Your task to perform on an android device: Show me productivity apps on the Play Store Image 0: 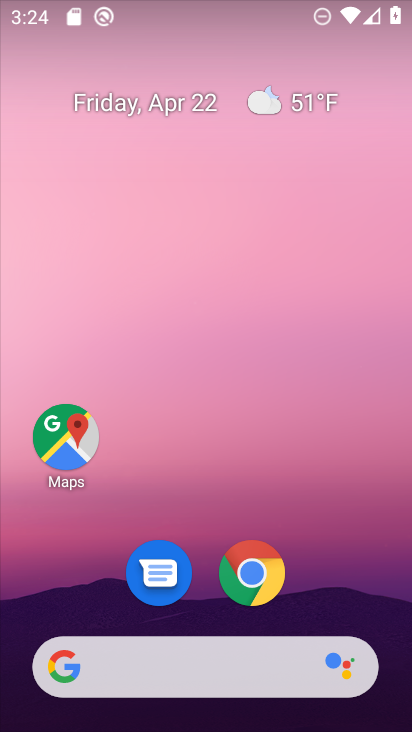
Step 0: drag from (317, 552) to (308, 190)
Your task to perform on an android device: Show me productivity apps on the Play Store Image 1: 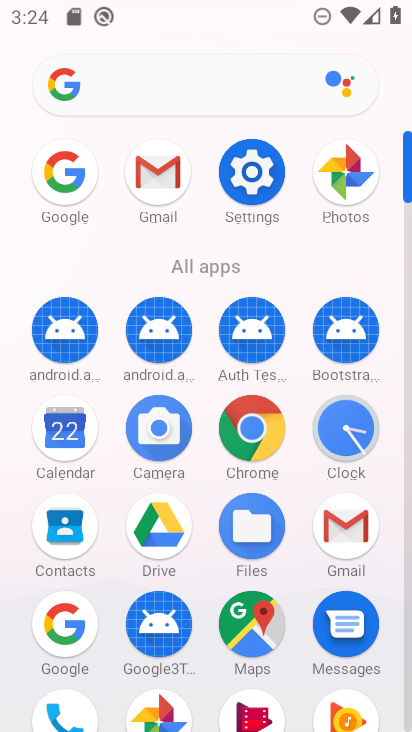
Step 1: drag from (231, 523) to (252, 131)
Your task to perform on an android device: Show me productivity apps on the Play Store Image 2: 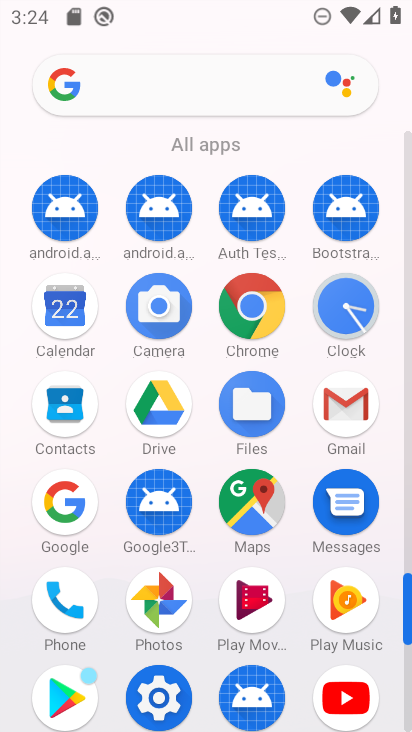
Step 2: drag from (209, 504) to (233, 173)
Your task to perform on an android device: Show me productivity apps on the Play Store Image 3: 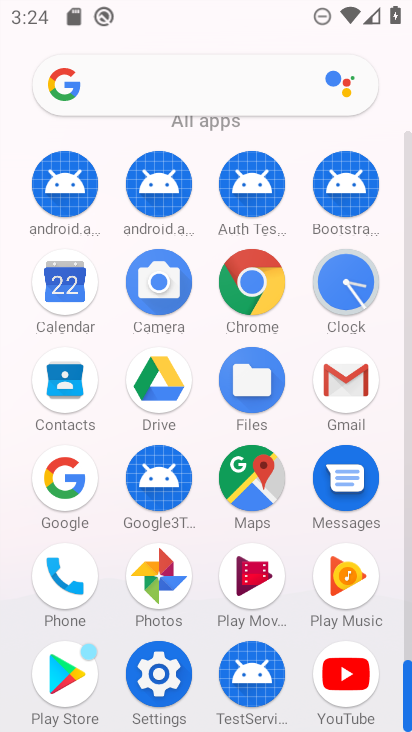
Step 3: click (95, 666)
Your task to perform on an android device: Show me productivity apps on the Play Store Image 4: 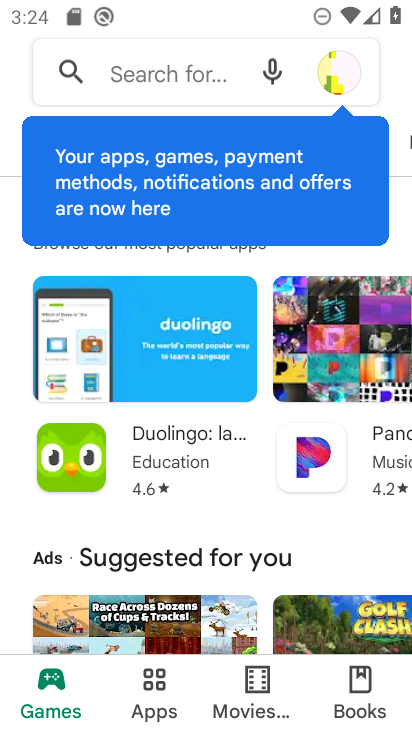
Step 4: click (166, 695)
Your task to perform on an android device: Show me productivity apps on the Play Store Image 5: 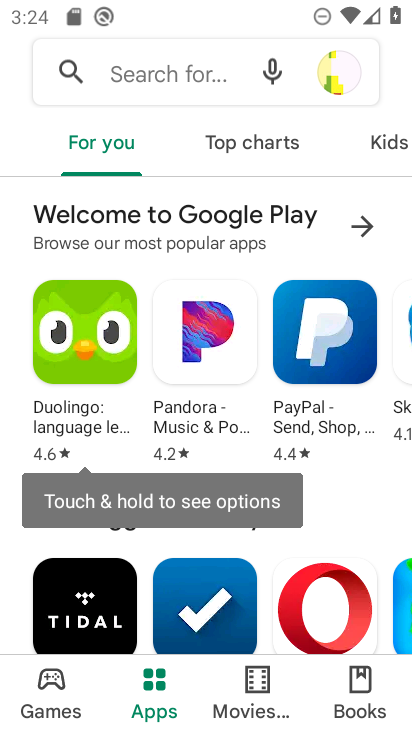
Step 5: click (149, 688)
Your task to perform on an android device: Show me productivity apps on the Play Store Image 6: 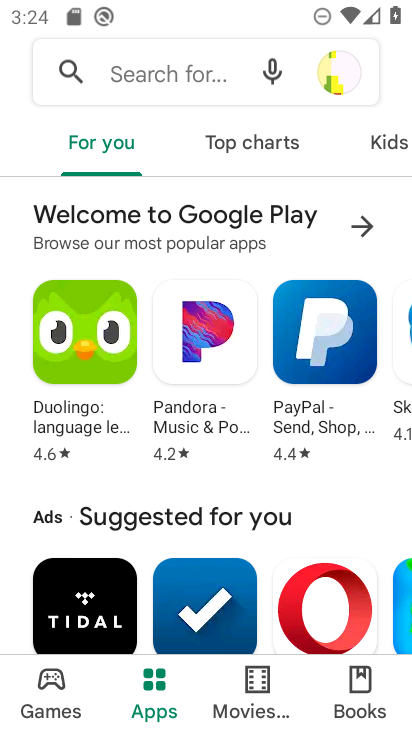
Step 6: drag from (343, 153) to (41, 251)
Your task to perform on an android device: Show me productivity apps on the Play Store Image 7: 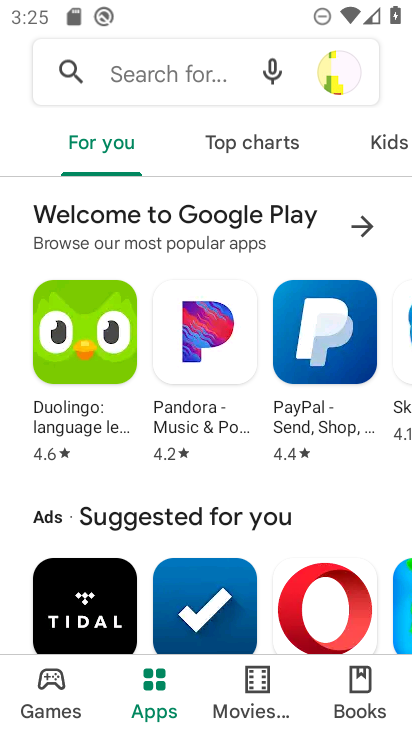
Step 7: drag from (364, 130) to (21, 132)
Your task to perform on an android device: Show me productivity apps on the Play Store Image 8: 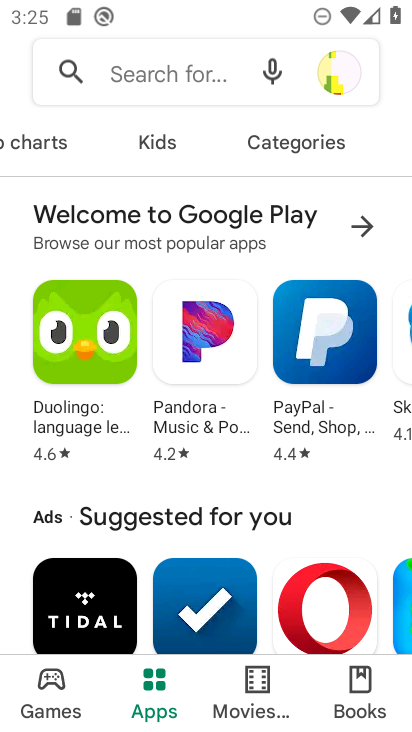
Step 8: click (285, 139)
Your task to perform on an android device: Show me productivity apps on the Play Store Image 9: 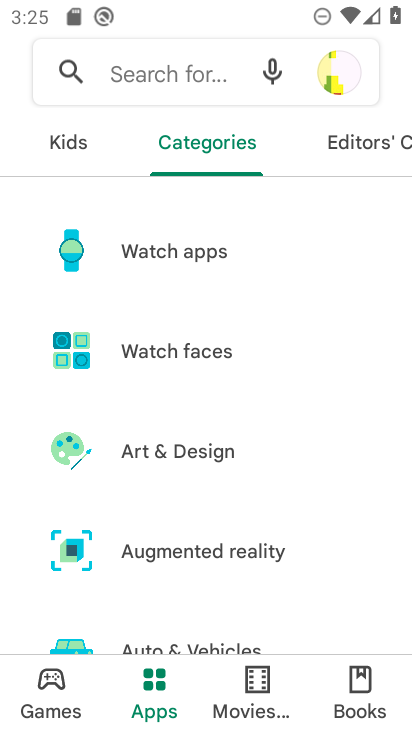
Step 9: drag from (226, 571) to (263, 73)
Your task to perform on an android device: Show me productivity apps on the Play Store Image 10: 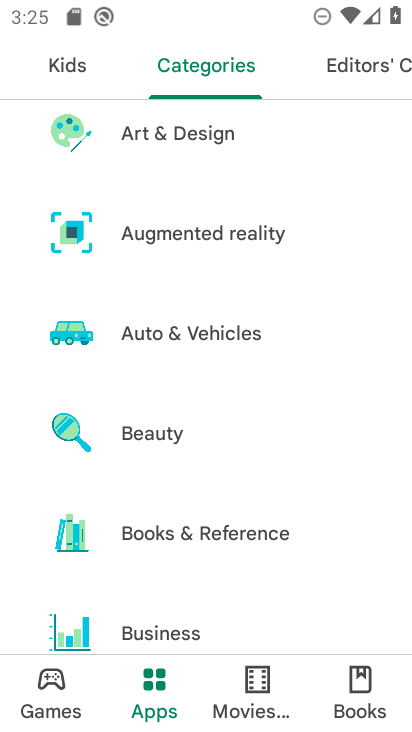
Step 10: drag from (198, 582) to (277, 11)
Your task to perform on an android device: Show me productivity apps on the Play Store Image 11: 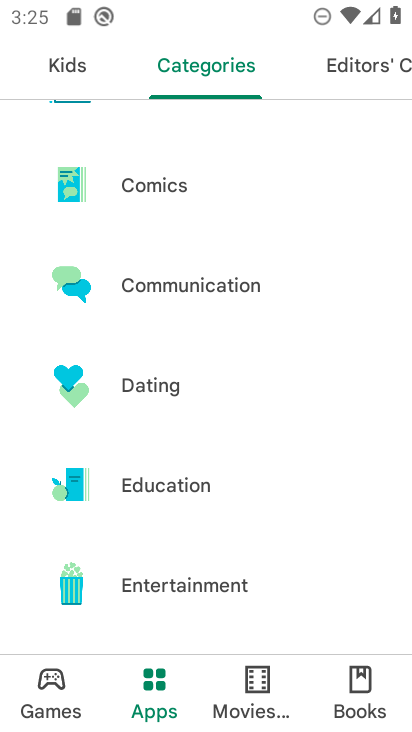
Step 11: drag from (273, 587) to (310, 90)
Your task to perform on an android device: Show me productivity apps on the Play Store Image 12: 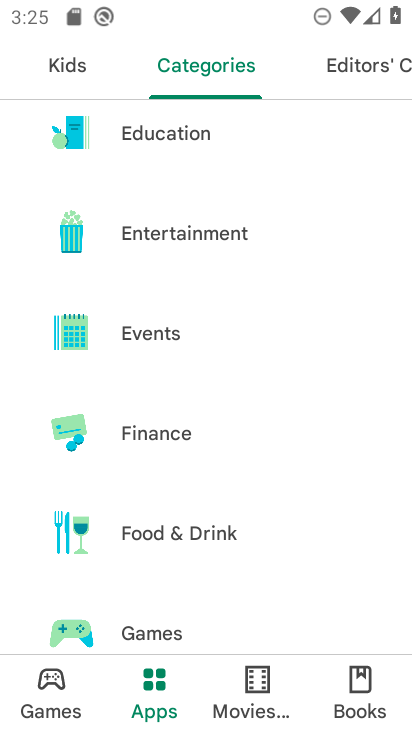
Step 12: drag from (247, 554) to (312, 10)
Your task to perform on an android device: Show me productivity apps on the Play Store Image 13: 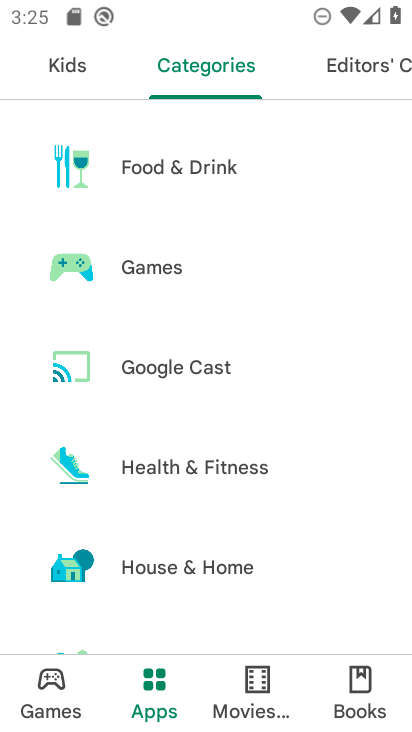
Step 13: drag from (251, 553) to (288, 13)
Your task to perform on an android device: Show me productivity apps on the Play Store Image 14: 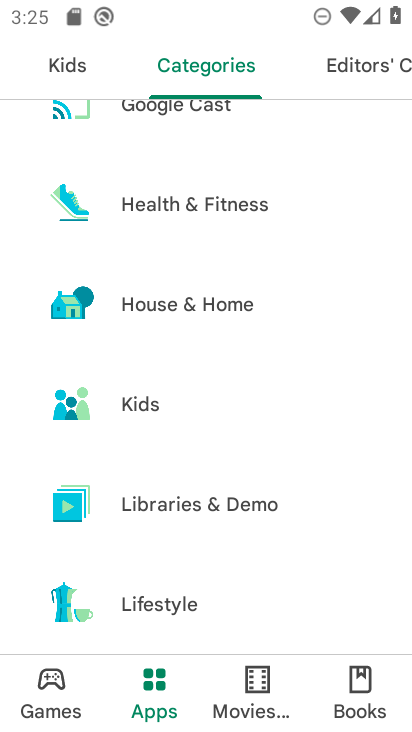
Step 14: drag from (187, 588) to (272, 55)
Your task to perform on an android device: Show me productivity apps on the Play Store Image 15: 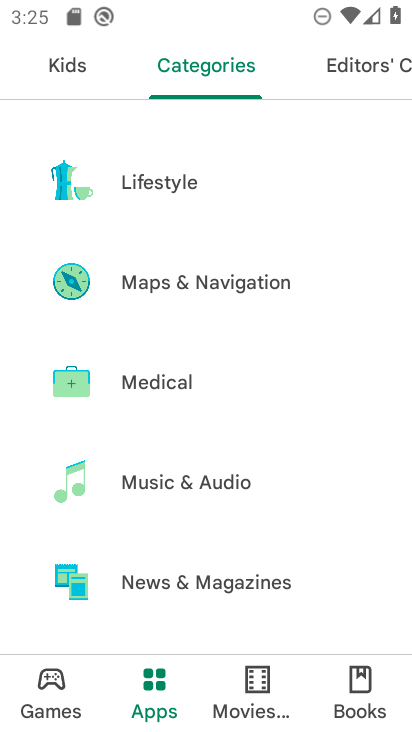
Step 15: drag from (224, 550) to (277, 68)
Your task to perform on an android device: Show me productivity apps on the Play Store Image 16: 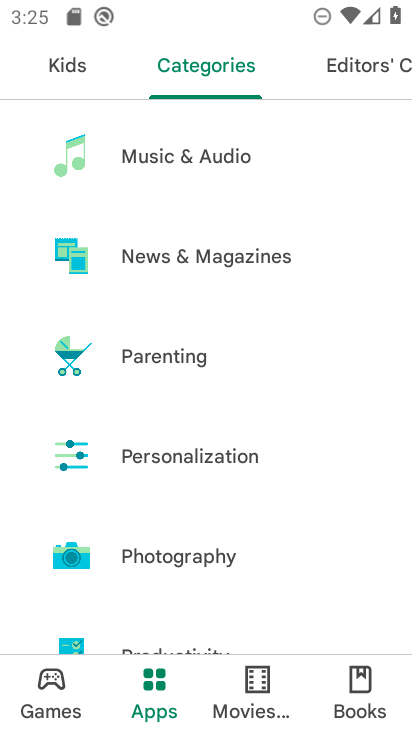
Step 16: drag from (205, 501) to (247, 92)
Your task to perform on an android device: Show me productivity apps on the Play Store Image 17: 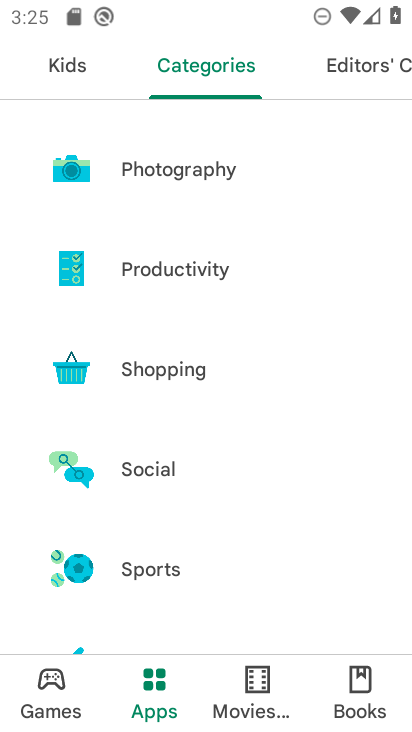
Step 17: click (231, 281)
Your task to perform on an android device: Show me productivity apps on the Play Store Image 18: 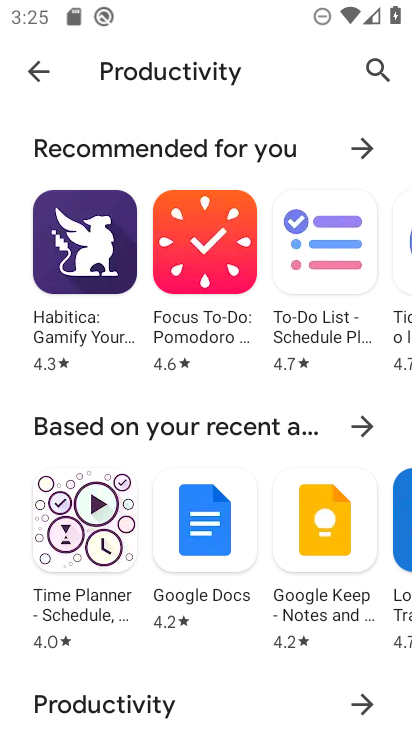
Step 18: task complete